Your task to perform on an android device: Open battery settings Image 0: 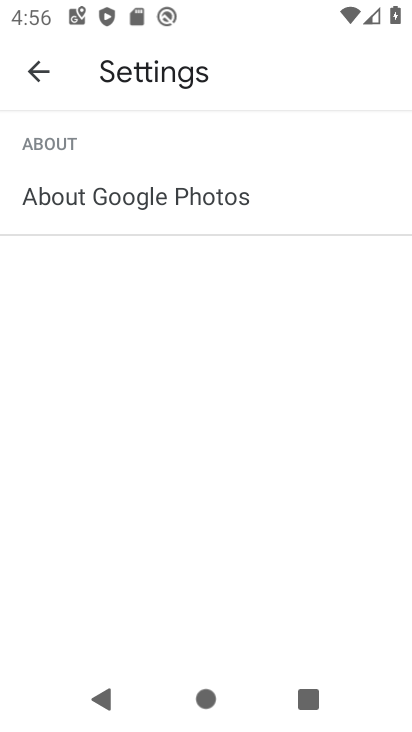
Step 0: press home button
Your task to perform on an android device: Open battery settings Image 1: 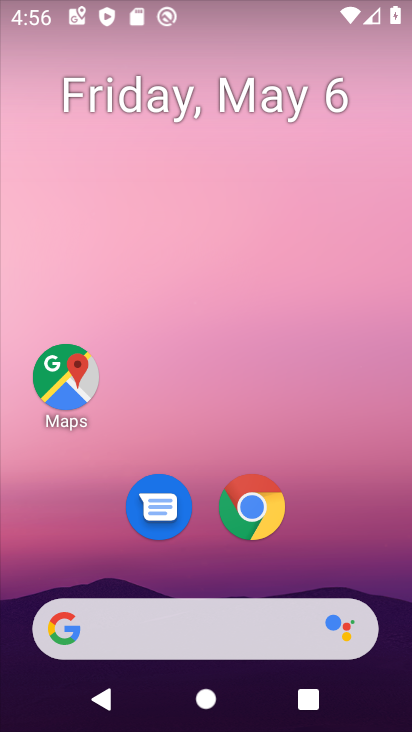
Step 1: drag from (330, 524) to (232, 137)
Your task to perform on an android device: Open battery settings Image 2: 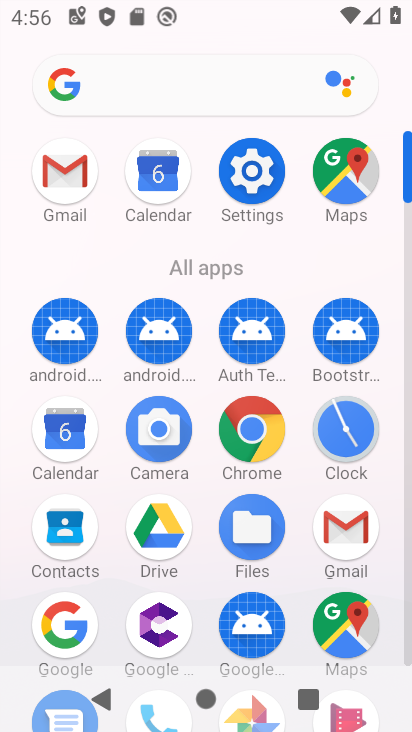
Step 2: click (242, 160)
Your task to perform on an android device: Open battery settings Image 3: 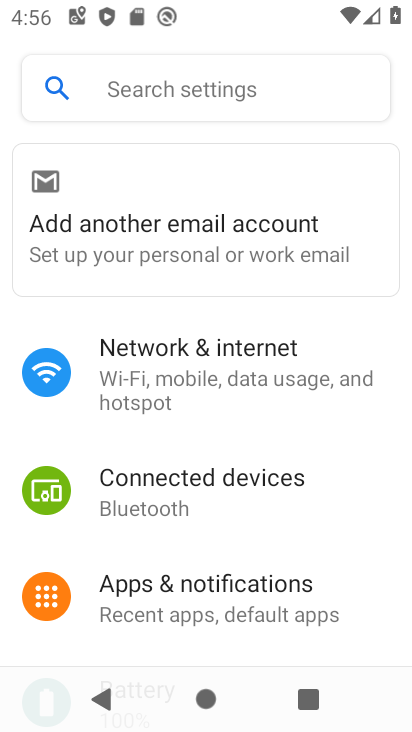
Step 3: drag from (156, 538) to (85, 178)
Your task to perform on an android device: Open battery settings Image 4: 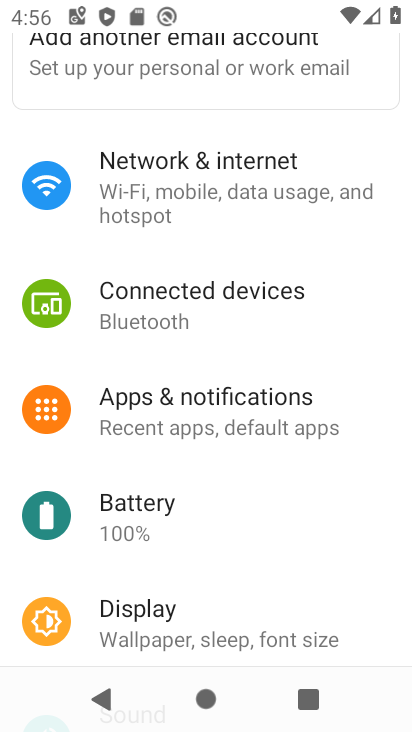
Step 4: click (140, 503)
Your task to perform on an android device: Open battery settings Image 5: 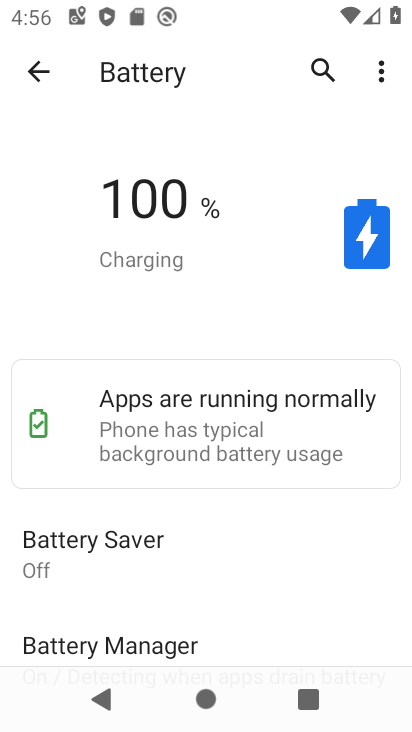
Step 5: task complete